Your task to perform on an android device: Open CNN.com Image 0: 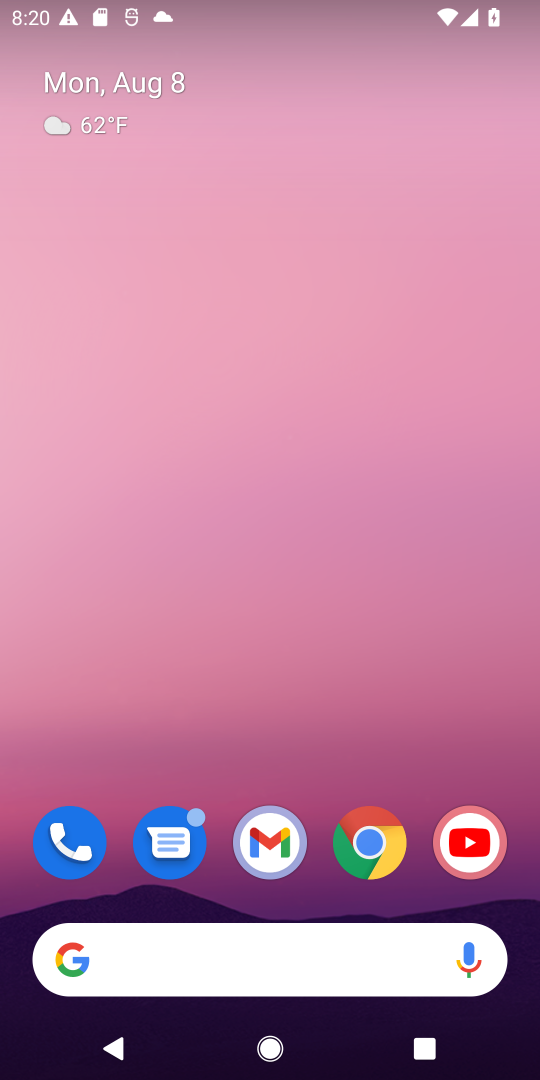
Step 0: click (287, 973)
Your task to perform on an android device: Open CNN.com Image 1: 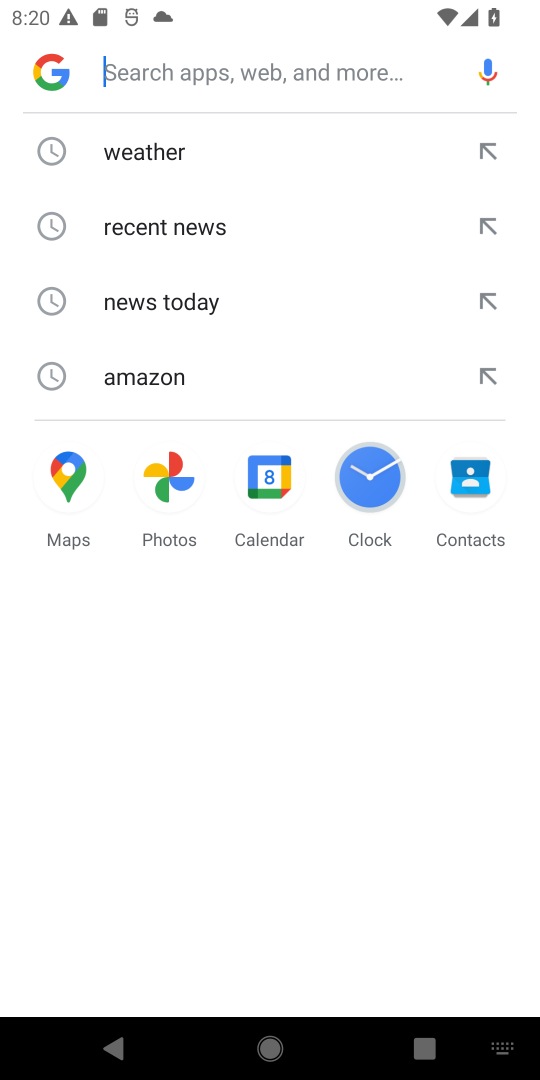
Step 1: type "cnn.com"
Your task to perform on an android device: Open CNN.com Image 2: 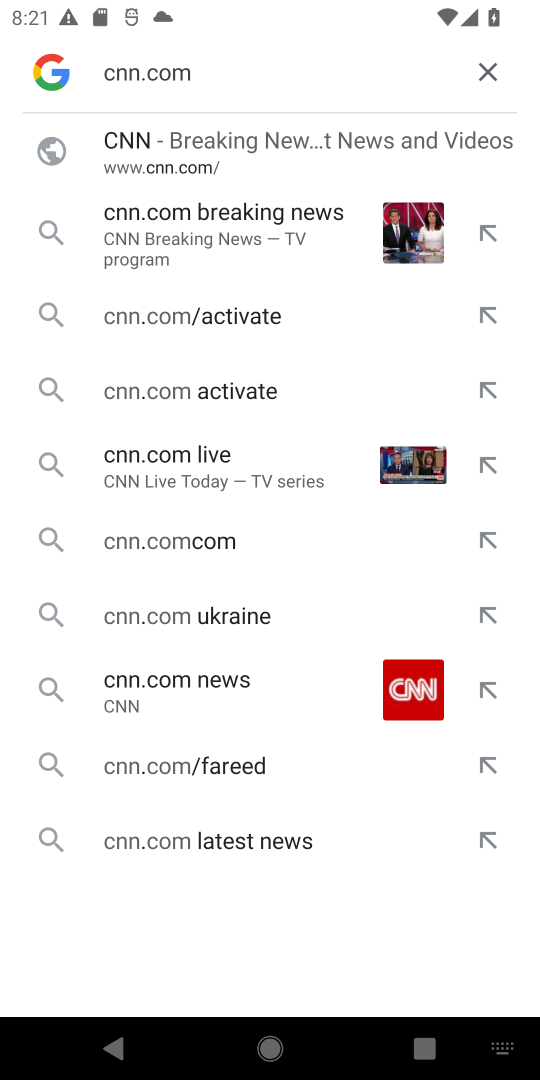
Step 2: click (299, 160)
Your task to perform on an android device: Open CNN.com Image 3: 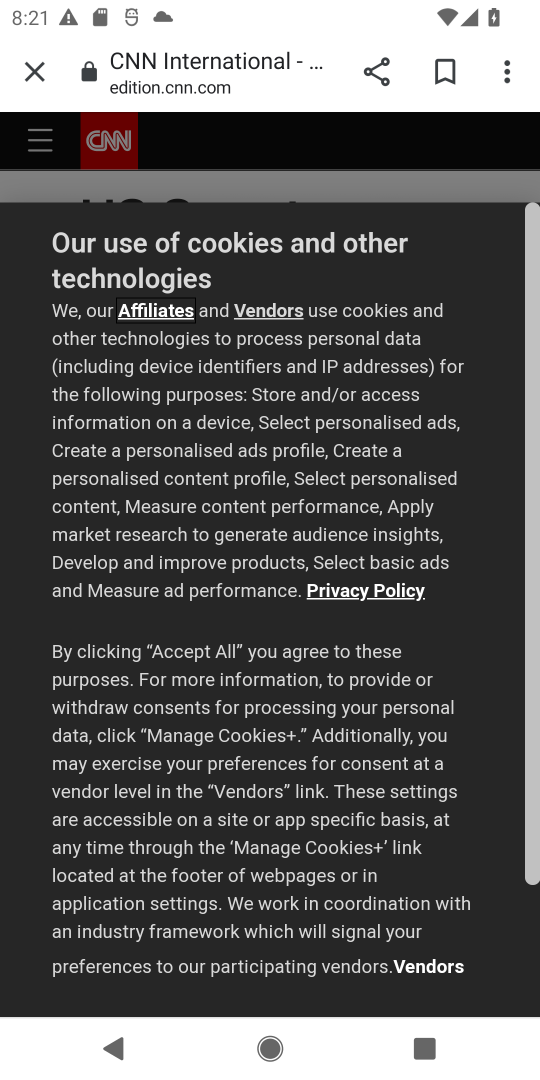
Step 3: drag from (299, 804) to (431, 139)
Your task to perform on an android device: Open CNN.com Image 4: 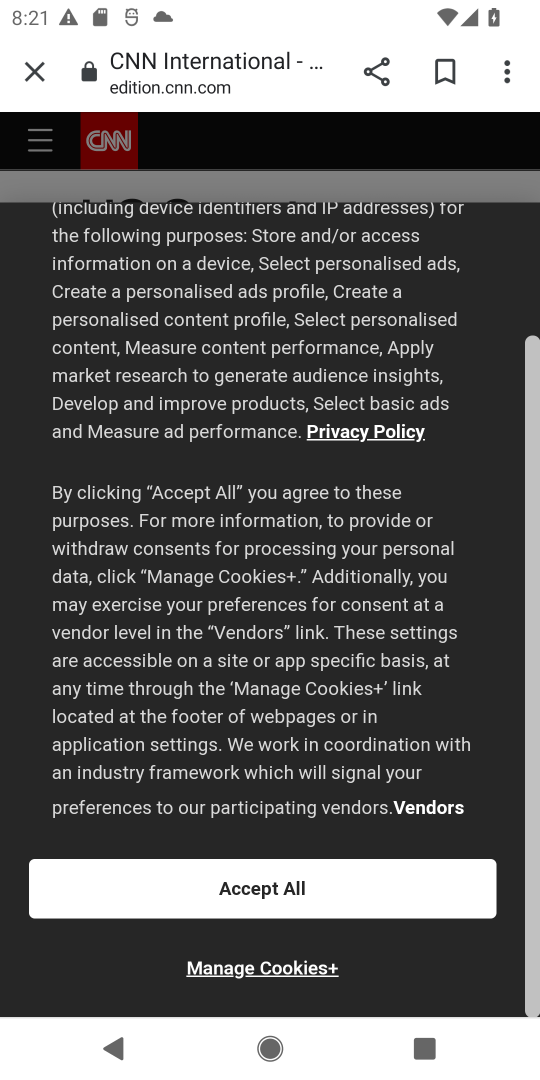
Step 4: click (305, 878)
Your task to perform on an android device: Open CNN.com Image 5: 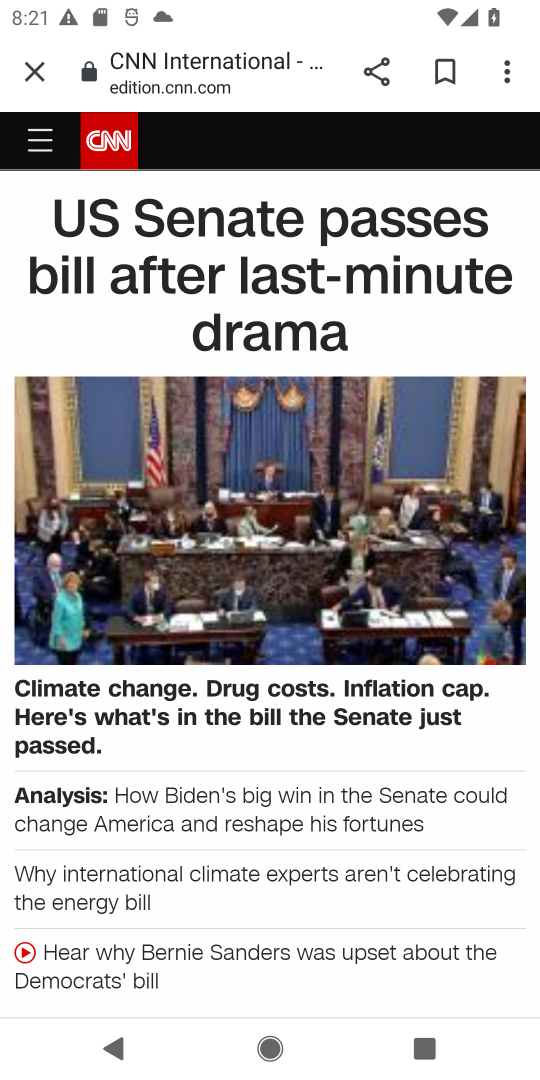
Step 5: task complete